Your task to perform on an android device: Open battery settings Image 0: 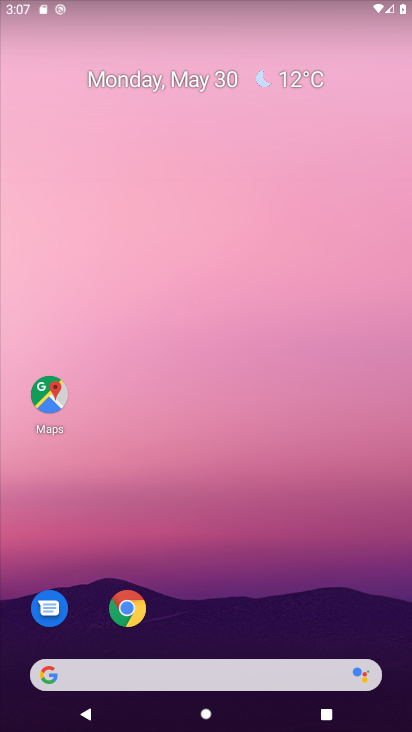
Step 0: drag from (281, 439) to (248, 37)
Your task to perform on an android device: Open battery settings Image 1: 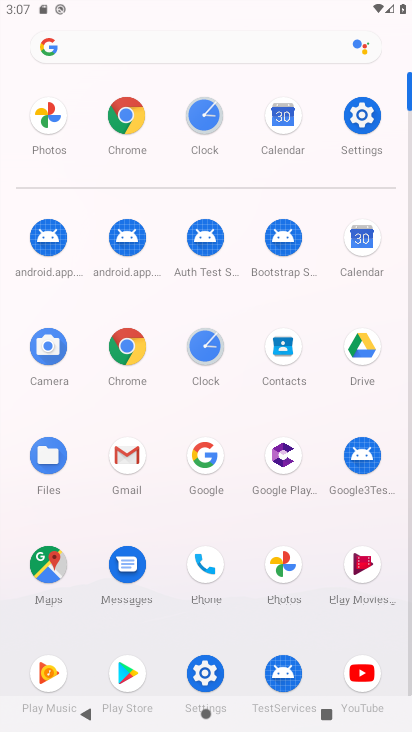
Step 1: click (366, 121)
Your task to perform on an android device: Open battery settings Image 2: 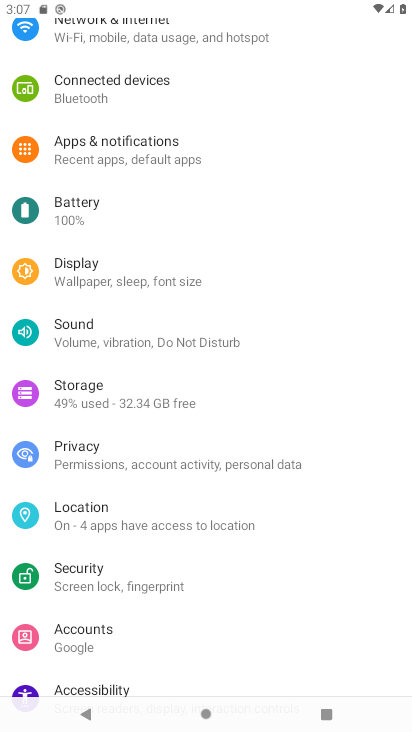
Step 2: click (147, 217)
Your task to perform on an android device: Open battery settings Image 3: 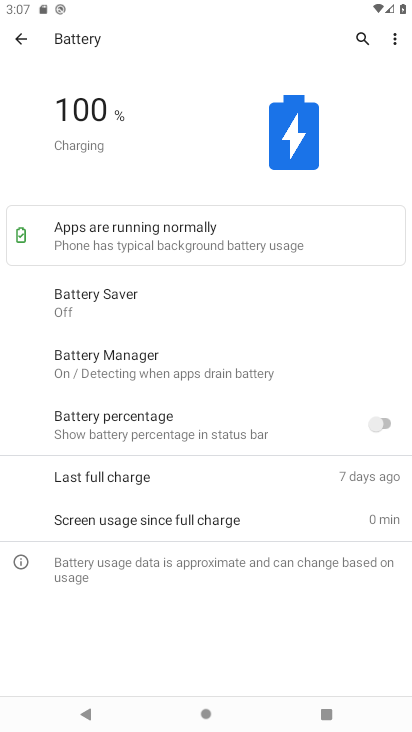
Step 3: task complete